Your task to perform on an android device: Check the news Image 0: 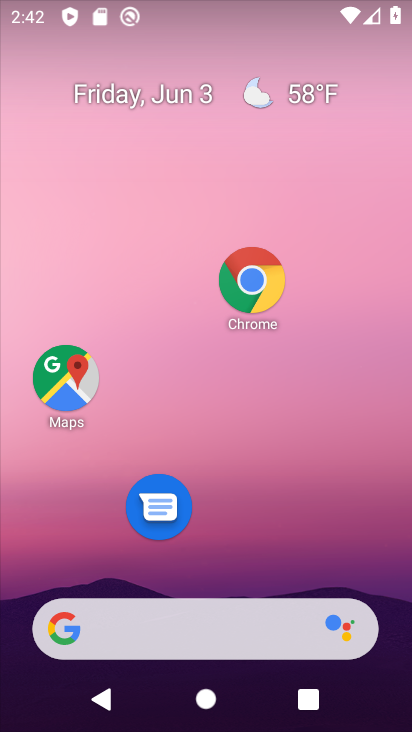
Step 0: drag from (235, 554) to (256, 24)
Your task to perform on an android device: Check the news Image 1: 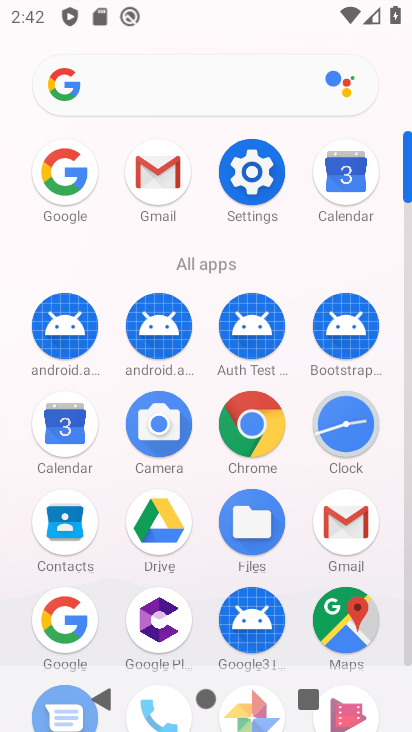
Step 1: click (57, 157)
Your task to perform on an android device: Check the news Image 2: 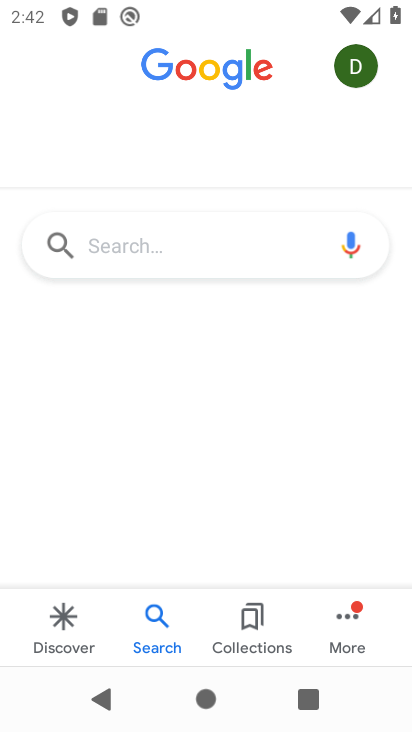
Step 2: click (183, 259)
Your task to perform on an android device: Check the news Image 3: 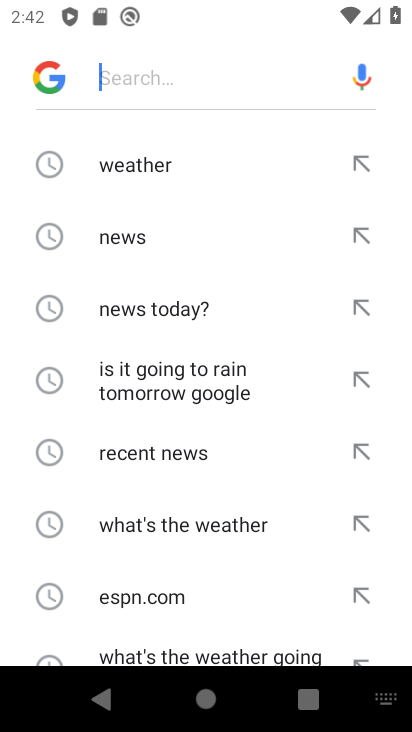
Step 3: click (127, 229)
Your task to perform on an android device: Check the news Image 4: 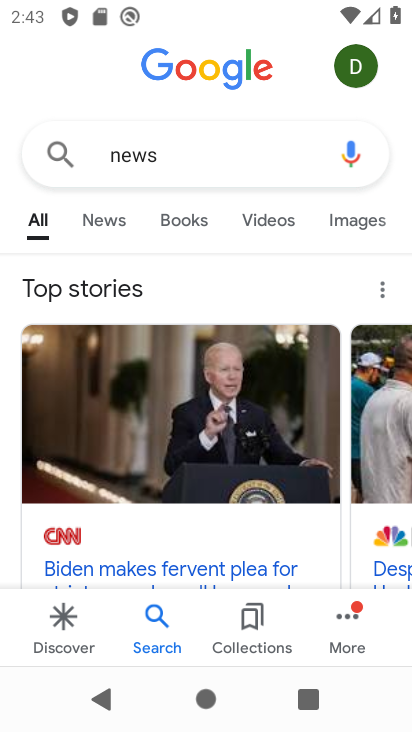
Step 4: task complete